Your task to perform on an android device: Go to wifi settings Image 0: 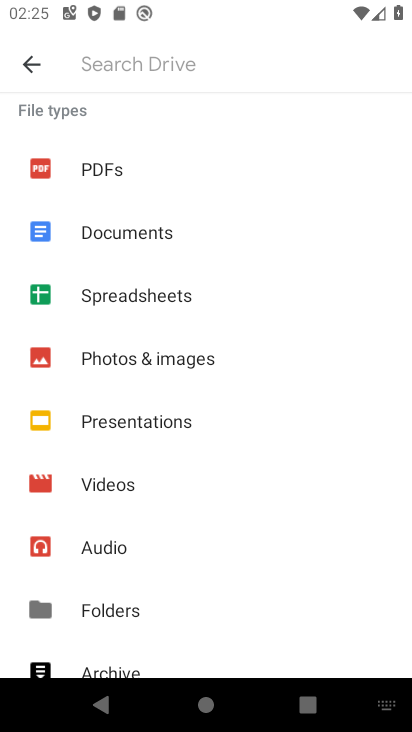
Step 0: drag from (183, 207) to (408, 451)
Your task to perform on an android device: Go to wifi settings Image 1: 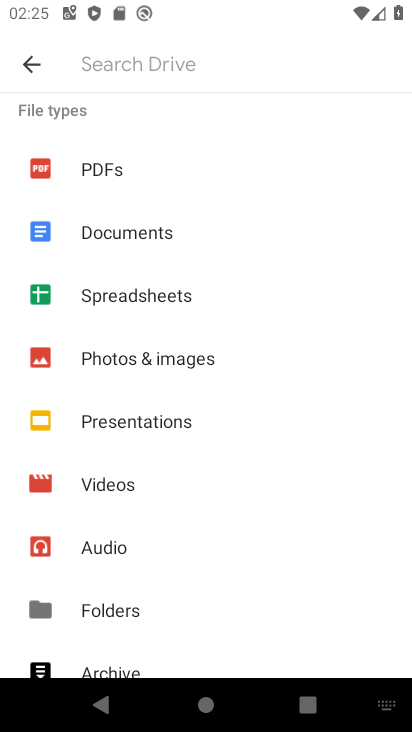
Step 1: press home button
Your task to perform on an android device: Go to wifi settings Image 2: 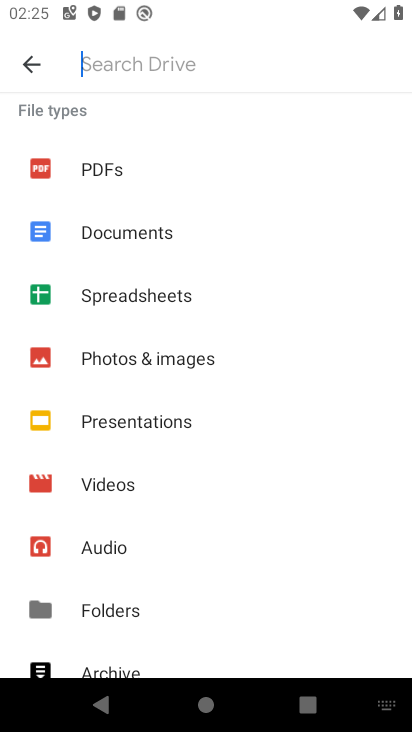
Step 2: click (408, 451)
Your task to perform on an android device: Go to wifi settings Image 3: 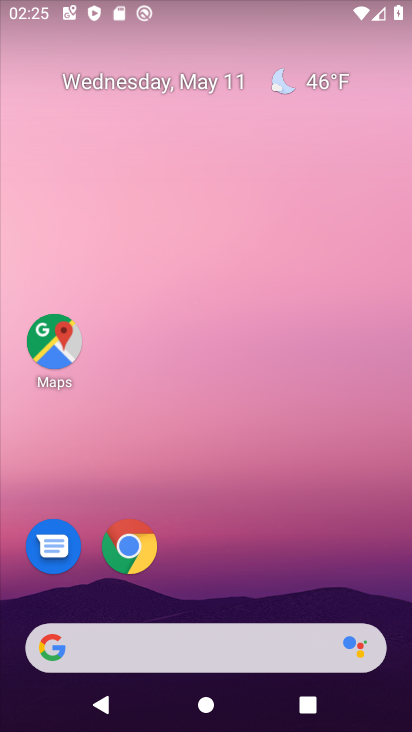
Step 3: drag from (178, 582) to (249, 176)
Your task to perform on an android device: Go to wifi settings Image 4: 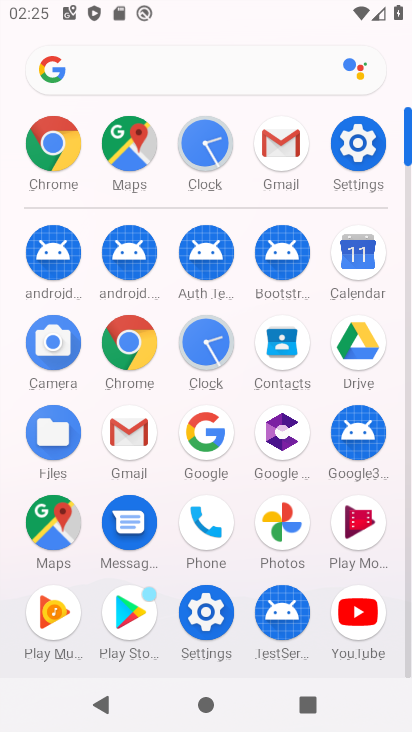
Step 4: click (351, 138)
Your task to perform on an android device: Go to wifi settings Image 5: 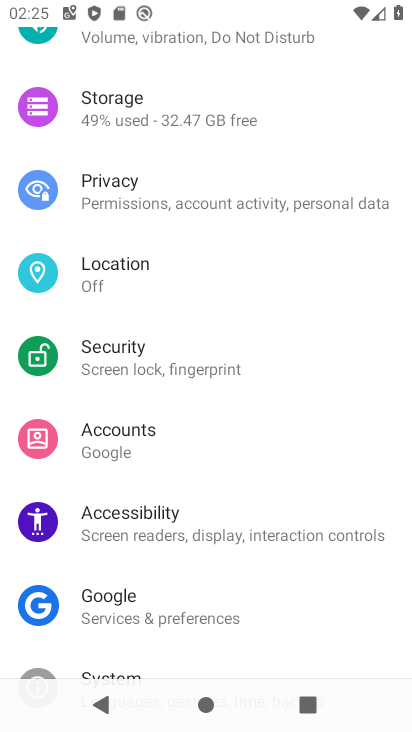
Step 5: drag from (208, 637) to (225, 257)
Your task to perform on an android device: Go to wifi settings Image 6: 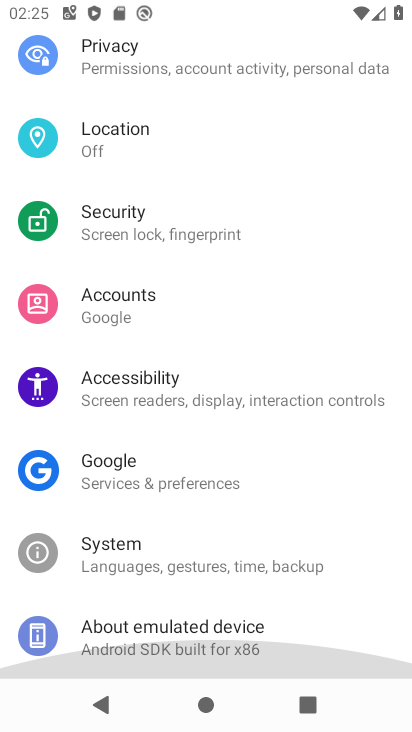
Step 6: drag from (224, 237) to (241, 728)
Your task to perform on an android device: Go to wifi settings Image 7: 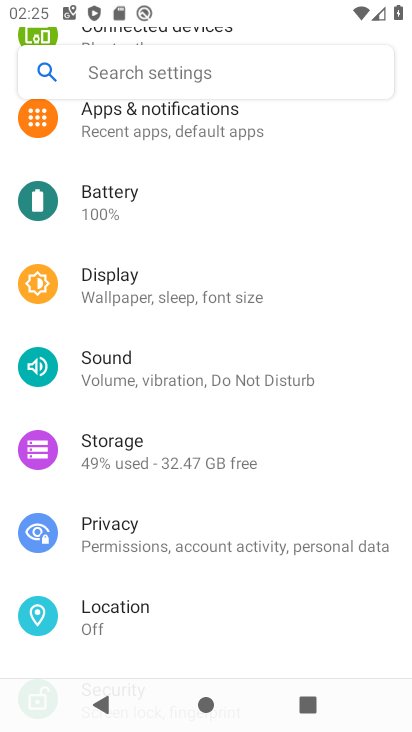
Step 7: drag from (211, 200) to (235, 635)
Your task to perform on an android device: Go to wifi settings Image 8: 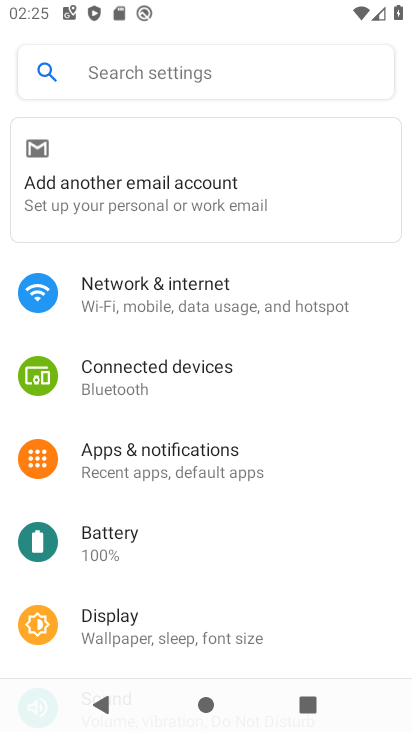
Step 8: click (144, 308)
Your task to perform on an android device: Go to wifi settings Image 9: 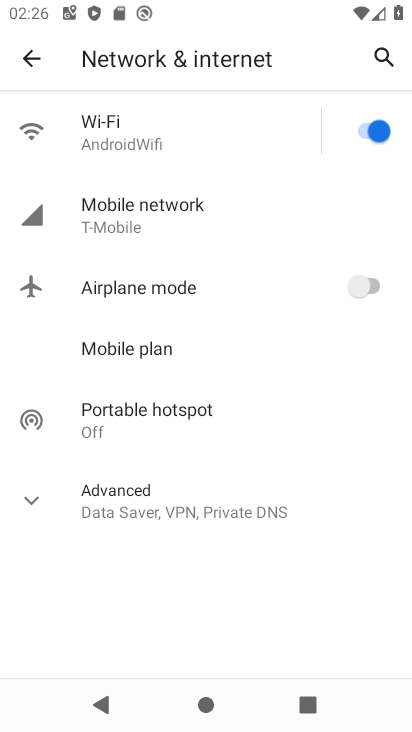
Step 9: click (212, 144)
Your task to perform on an android device: Go to wifi settings Image 10: 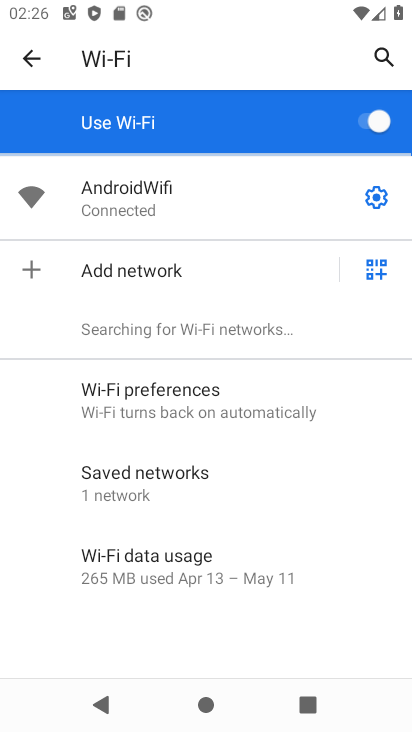
Step 10: drag from (226, 536) to (279, 252)
Your task to perform on an android device: Go to wifi settings Image 11: 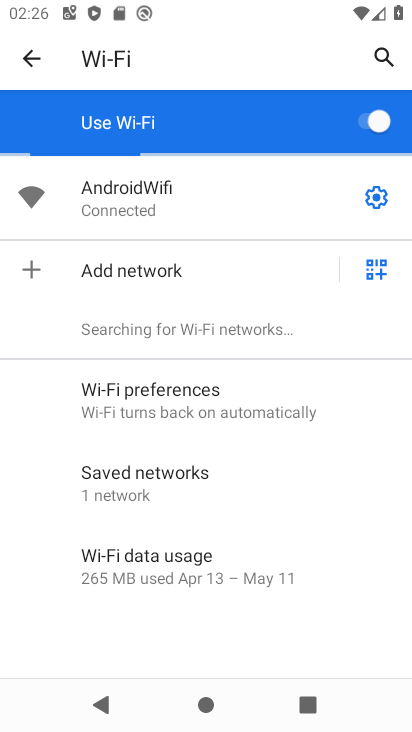
Step 11: click (389, 199)
Your task to perform on an android device: Go to wifi settings Image 12: 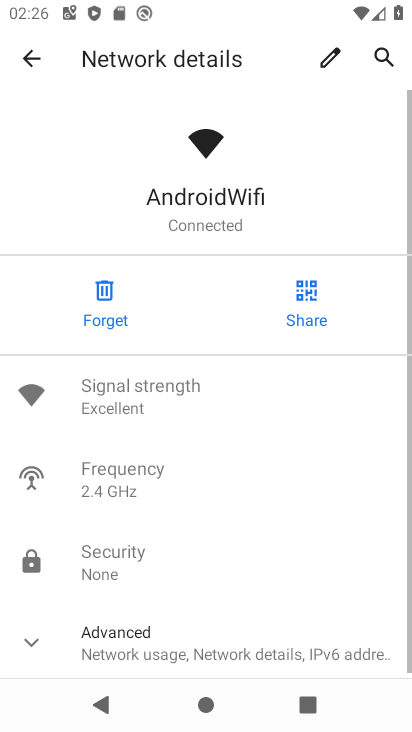
Step 12: task complete